Your task to perform on an android device: change your default location settings in chrome Image 0: 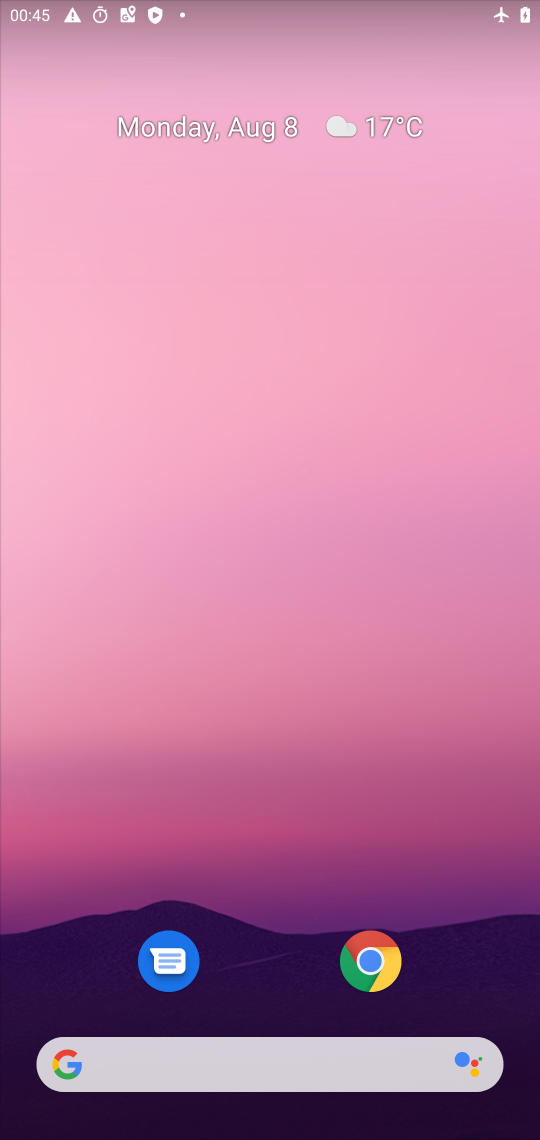
Step 0: drag from (403, 1029) to (329, 106)
Your task to perform on an android device: change your default location settings in chrome Image 1: 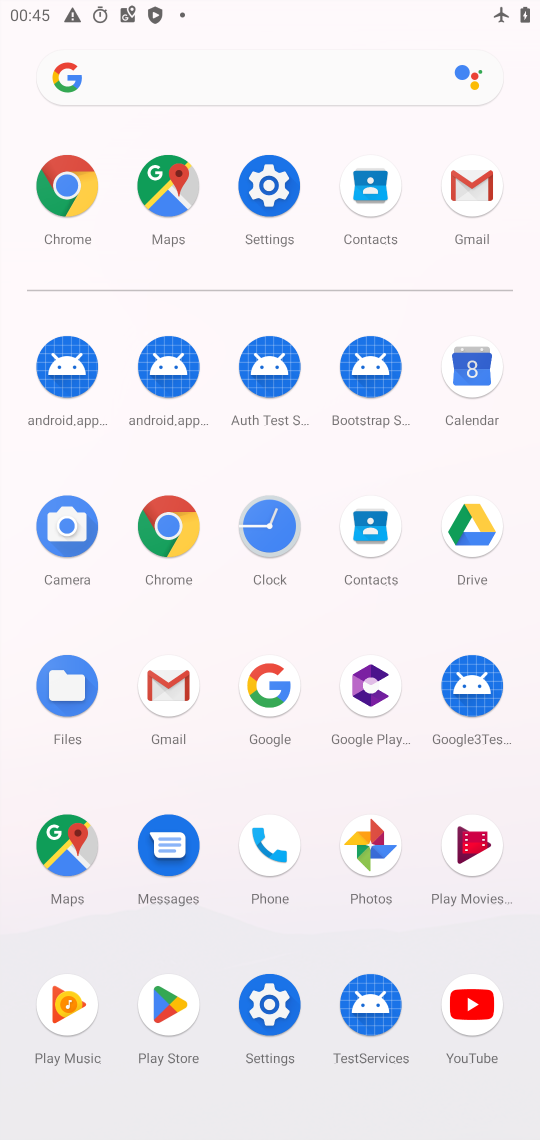
Step 1: click (172, 530)
Your task to perform on an android device: change your default location settings in chrome Image 2: 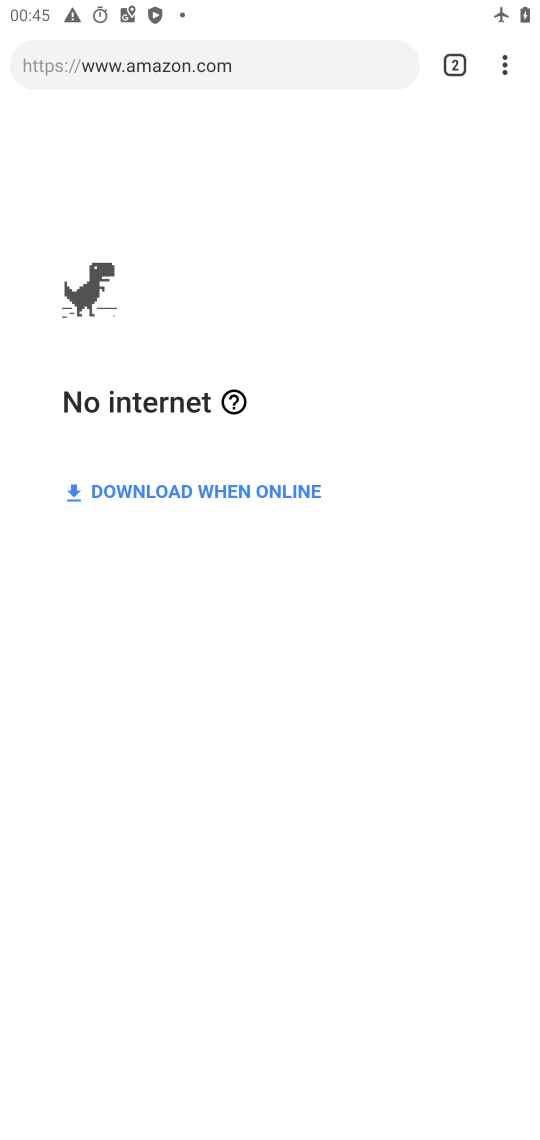
Step 2: click (496, 51)
Your task to perform on an android device: change your default location settings in chrome Image 3: 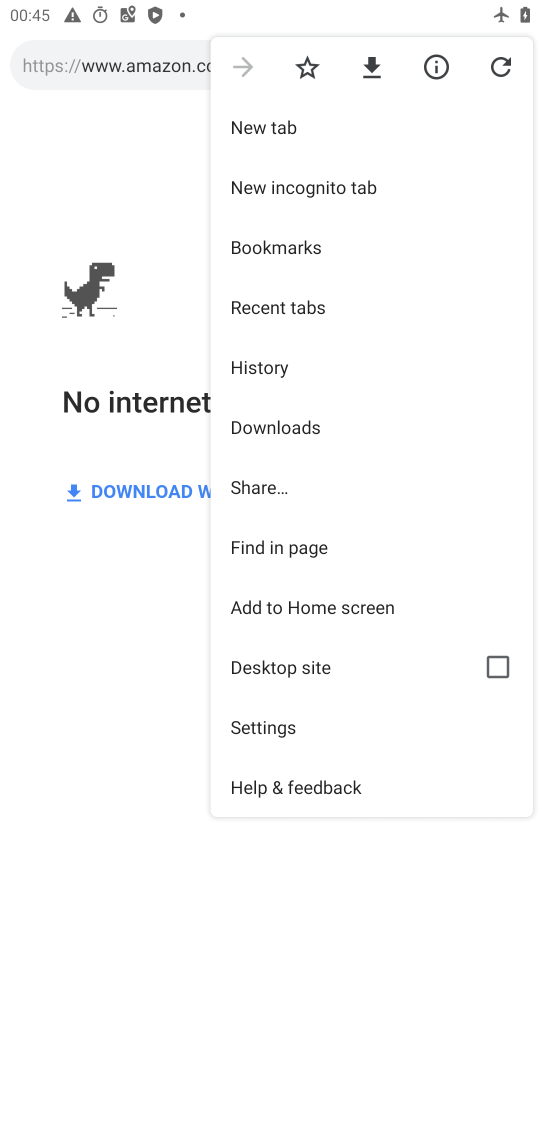
Step 3: click (303, 726)
Your task to perform on an android device: change your default location settings in chrome Image 4: 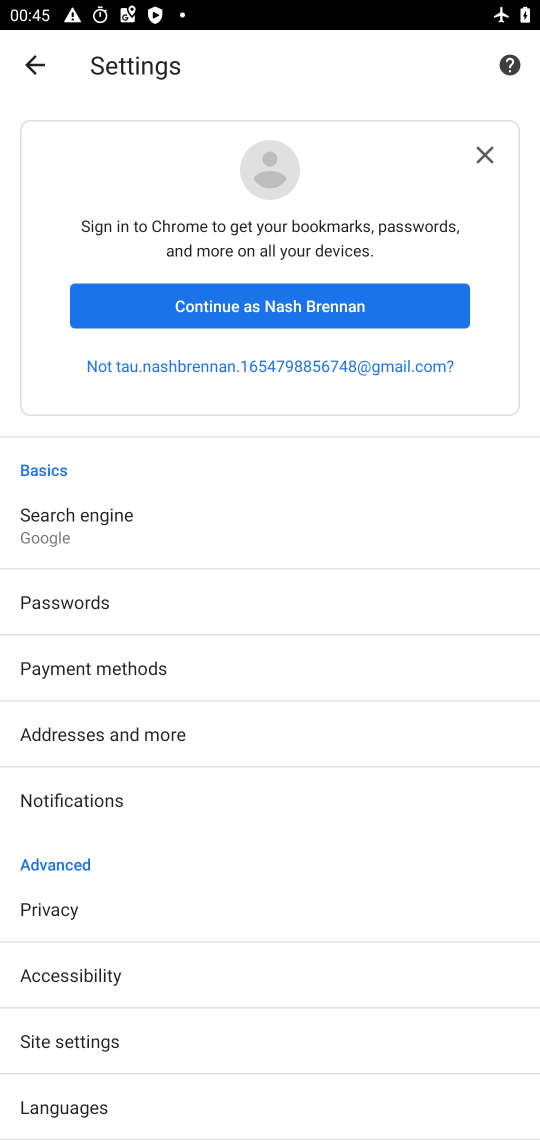
Step 4: click (156, 1039)
Your task to perform on an android device: change your default location settings in chrome Image 5: 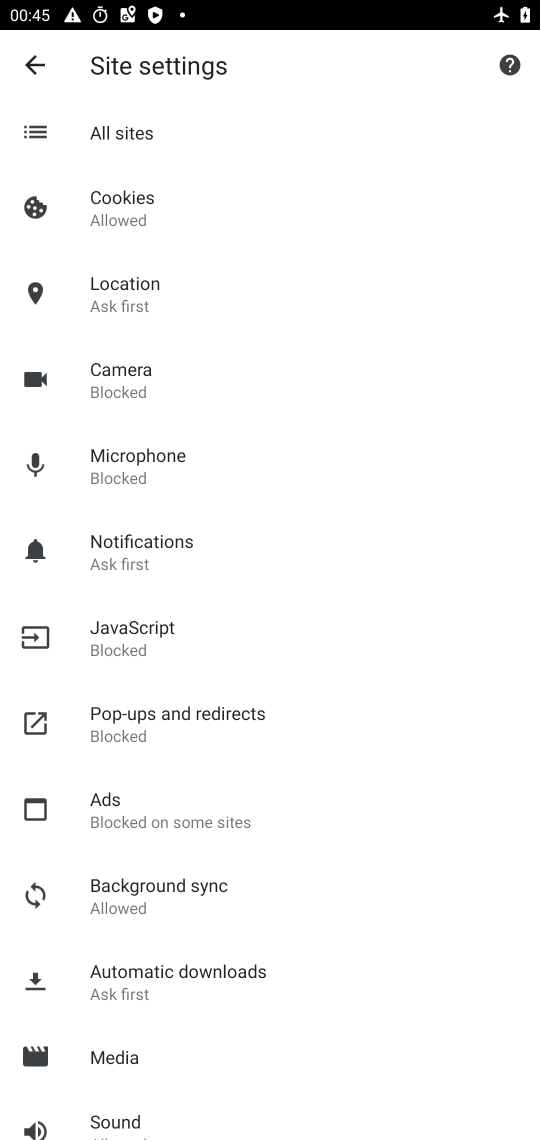
Step 5: click (170, 288)
Your task to perform on an android device: change your default location settings in chrome Image 6: 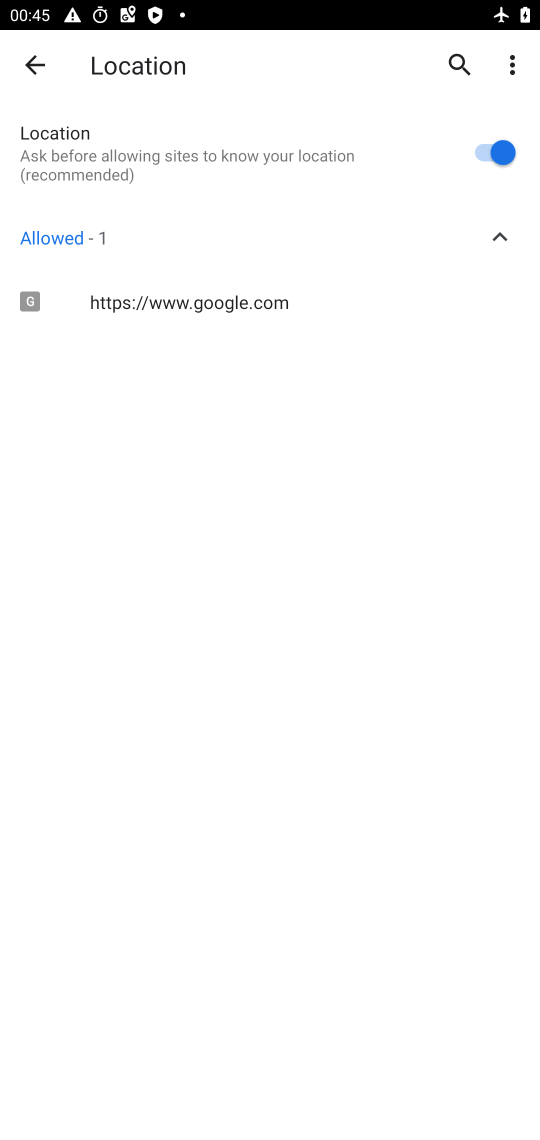
Step 6: click (477, 145)
Your task to perform on an android device: change your default location settings in chrome Image 7: 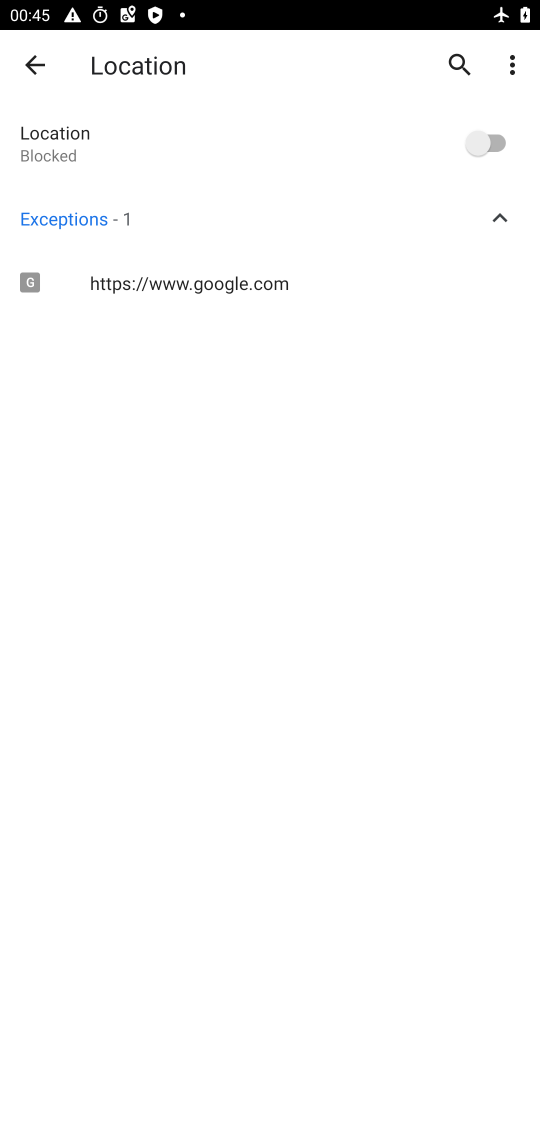
Step 7: task complete